Your task to perform on an android device: set the stopwatch Image 0: 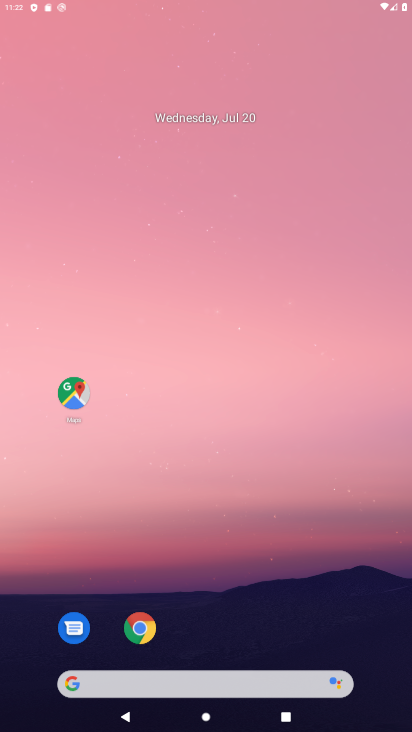
Step 0: drag from (270, 606) to (284, 19)
Your task to perform on an android device: set the stopwatch Image 1: 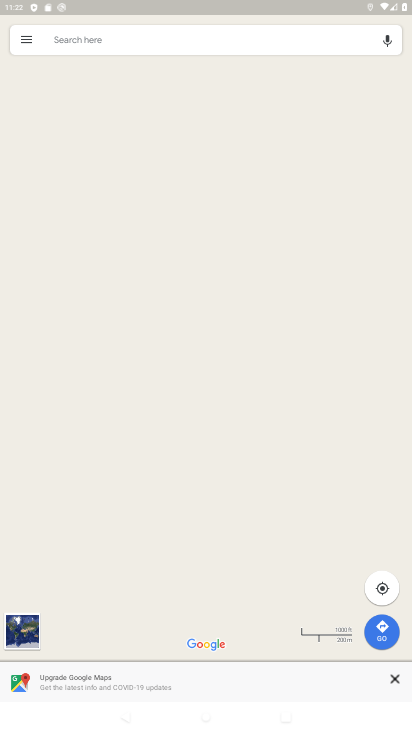
Step 1: press home button
Your task to perform on an android device: set the stopwatch Image 2: 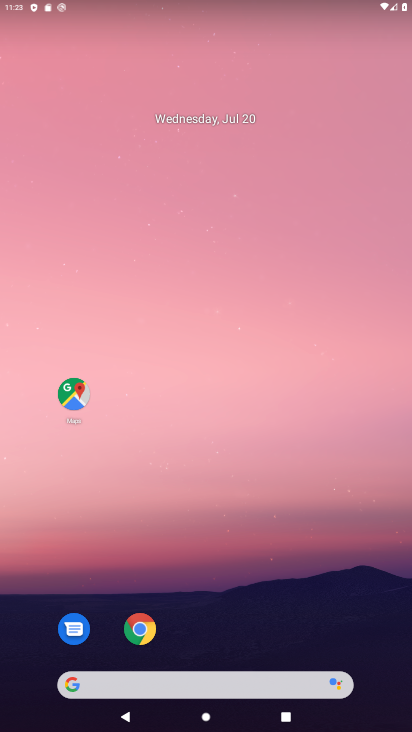
Step 2: drag from (217, 561) to (256, 1)
Your task to perform on an android device: set the stopwatch Image 3: 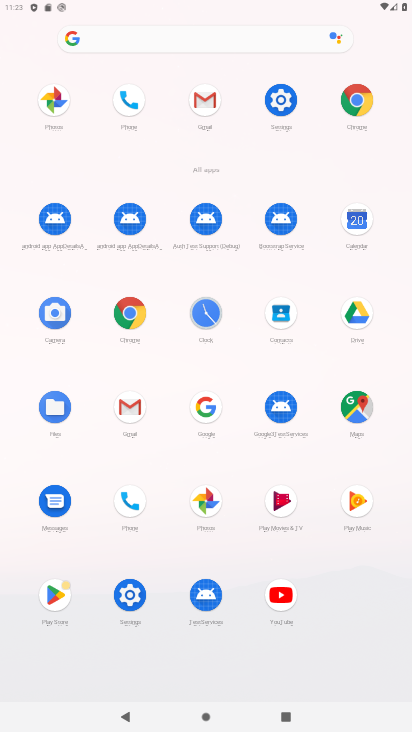
Step 3: click (212, 313)
Your task to perform on an android device: set the stopwatch Image 4: 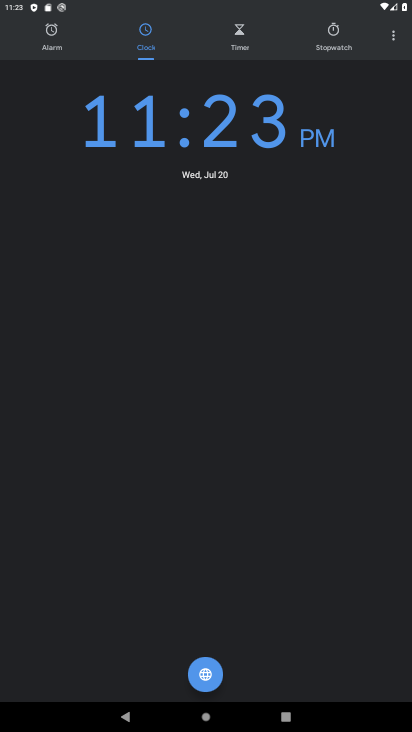
Step 4: click (337, 51)
Your task to perform on an android device: set the stopwatch Image 5: 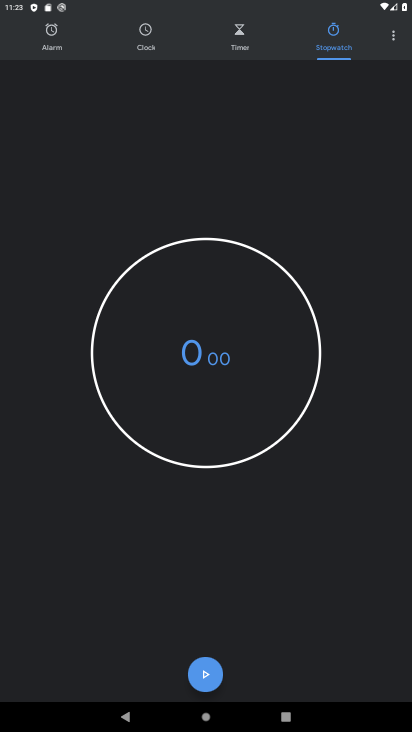
Step 5: click (206, 672)
Your task to perform on an android device: set the stopwatch Image 6: 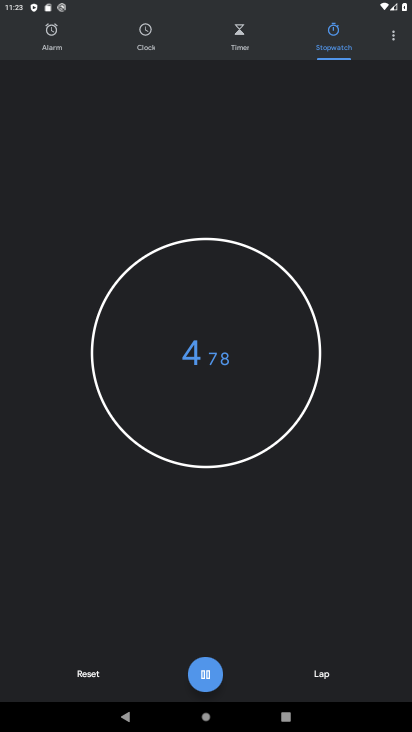
Step 6: task complete